Your task to perform on an android device: turn on airplane mode Image 0: 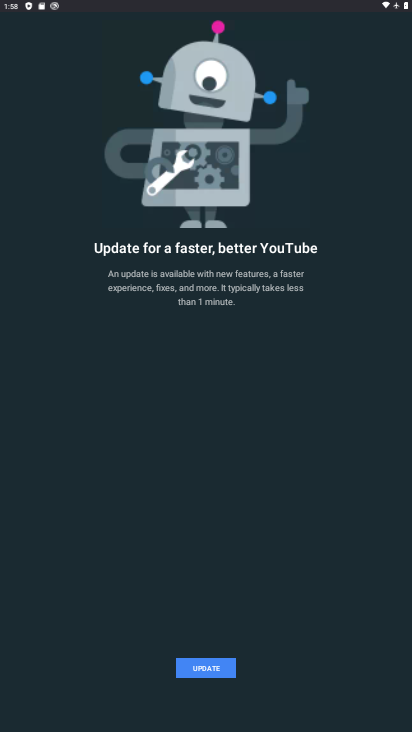
Step 0: press home button
Your task to perform on an android device: turn on airplane mode Image 1: 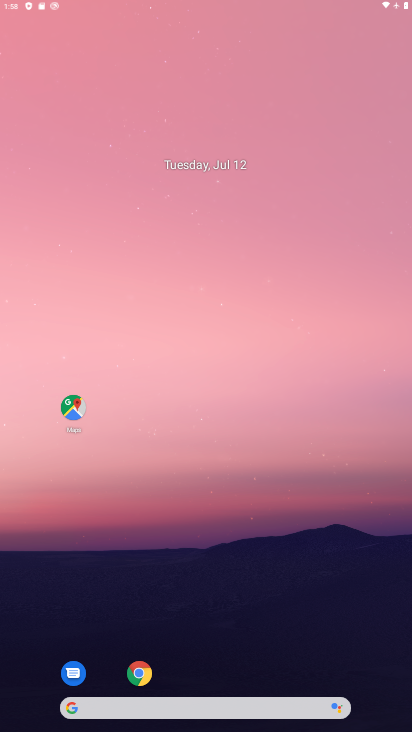
Step 1: drag from (170, 720) to (202, 250)
Your task to perform on an android device: turn on airplane mode Image 2: 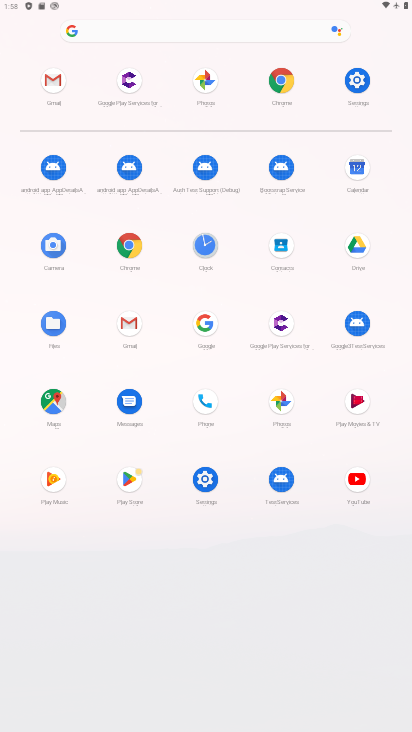
Step 2: click (369, 79)
Your task to perform on an android device: turn on airplane mode Image 3: 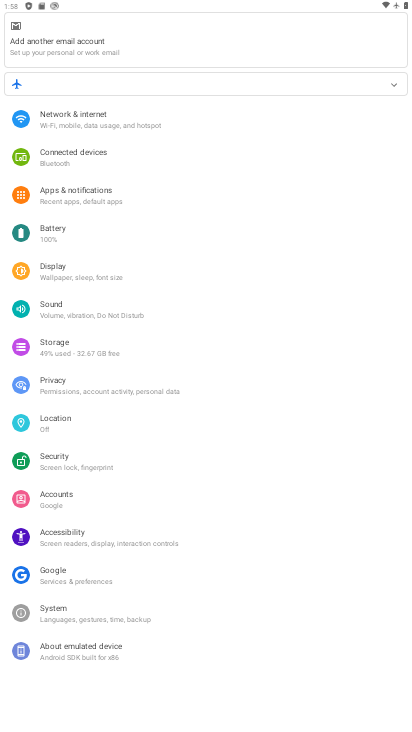
Step 3: click (94, 117)
Your task to perform on an android device: turn on airplane mode Image 4: 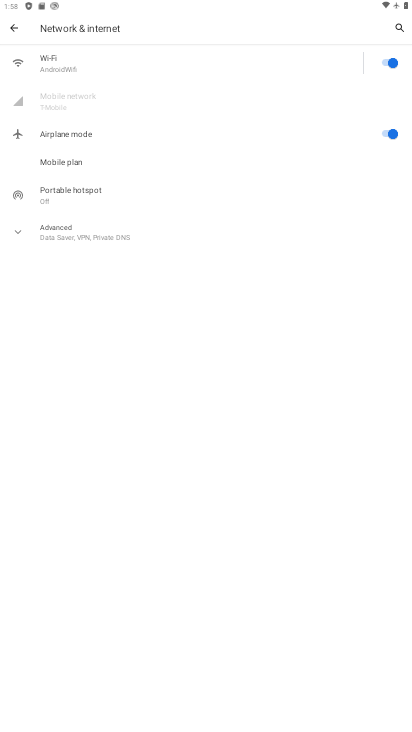
Step 4: click (84, 137)
Your task to perform on an android device: turn on airplane mode Image 5: 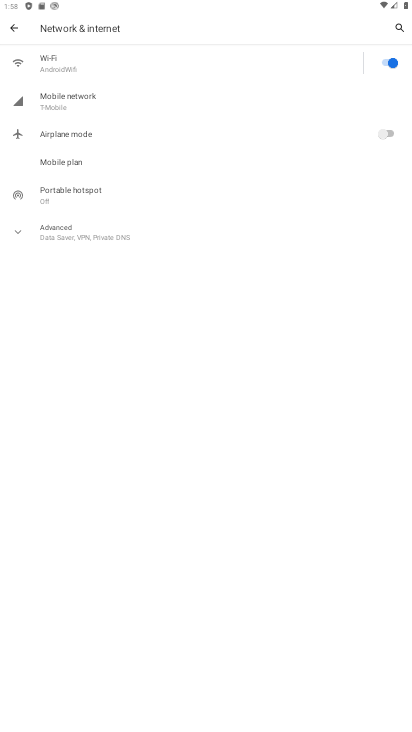
Step 5: click (389, 131)
Your task to perform on an android device: turn on airplane mode Image 6: 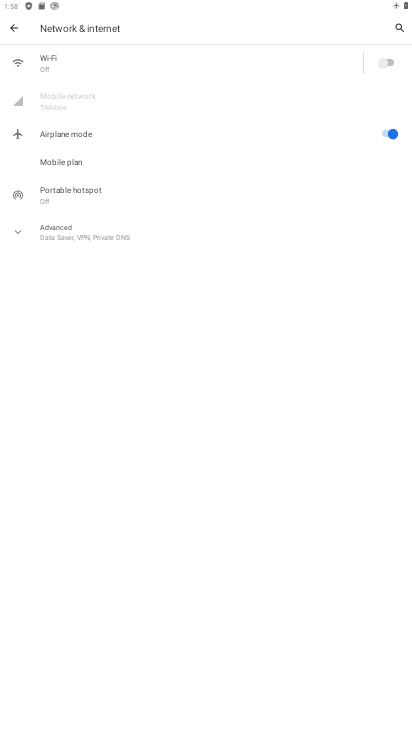
Step 6: task complete